Your task to perform on an android device: turn off picture-in-picture Image 0: 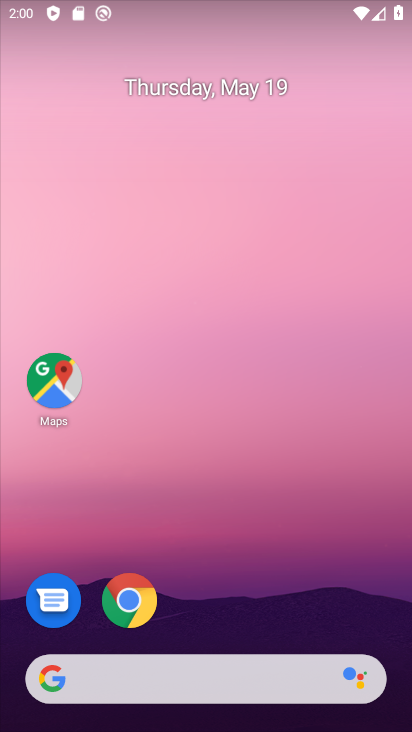
Step 0: click (131, 596)
Your task to perform on an android device: turn off picture-in-picture Image 1: 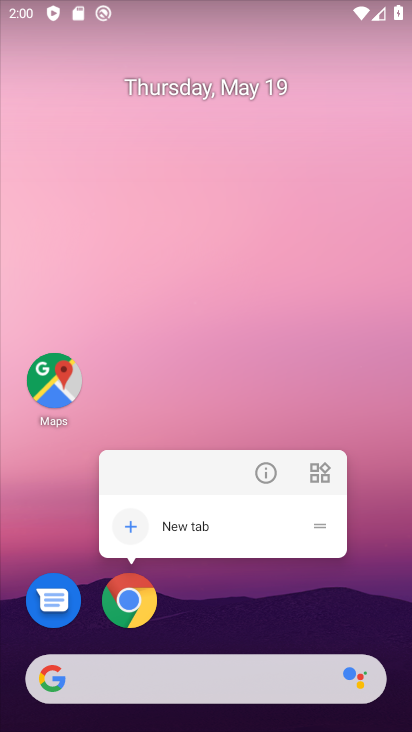
Step 1: click (268, 477)
Your task to perform on an android device: turn off picture-in-picture Image 2: 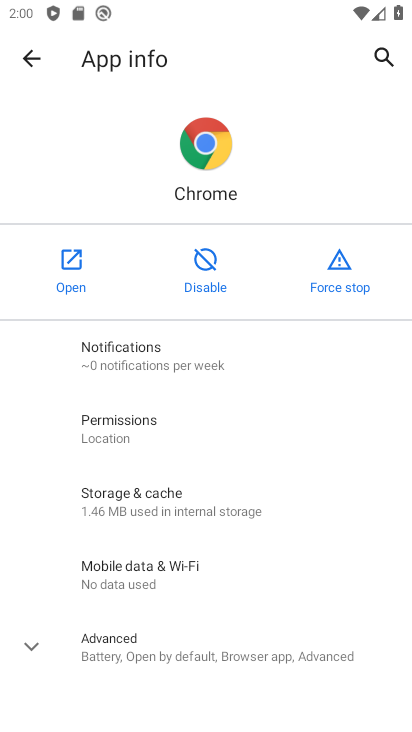
Step 2: drag from (184, 623) to (173, 310)
Your task to perform on an android device: turn off picture-in-picture Image 3: 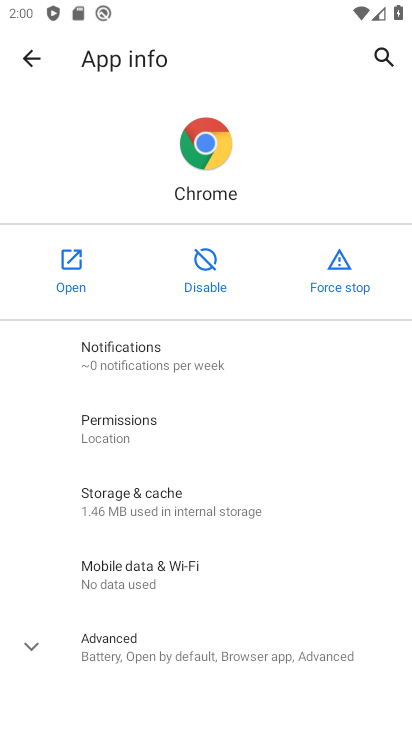
Step 3: click (183, 655)
Your task to perform on an android device: turn off picture-in-picture Image 4: 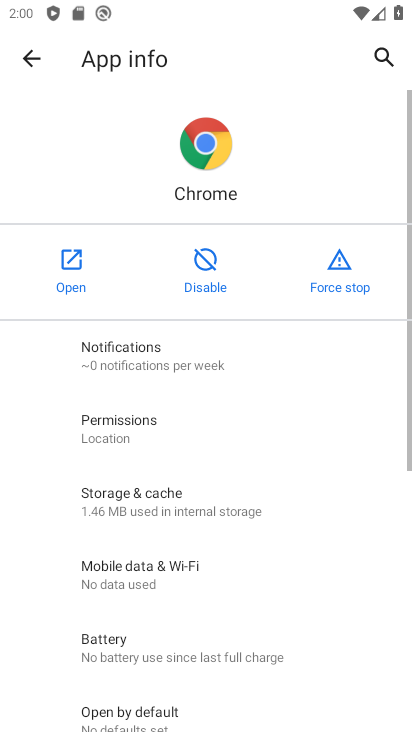
Step 4: drag from (191, 711) to (224, 317)
Your task to perform on an android device: turn off picture-in-picture Image 5: 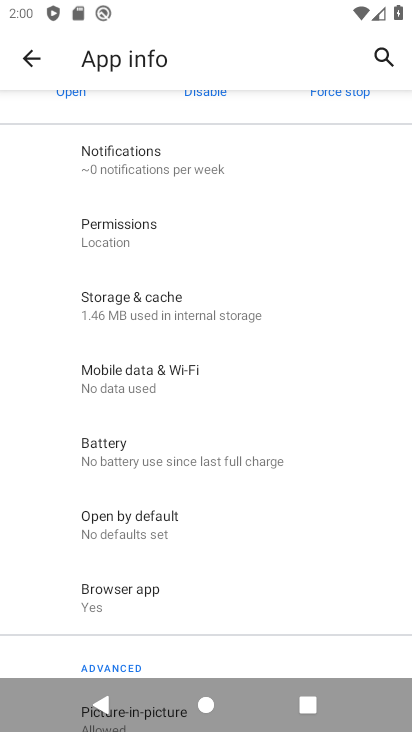
Step 5: drag from (213, 644) to (217, 315)
Your task to perform on an android device: turn off picture-in-picture Image 6: 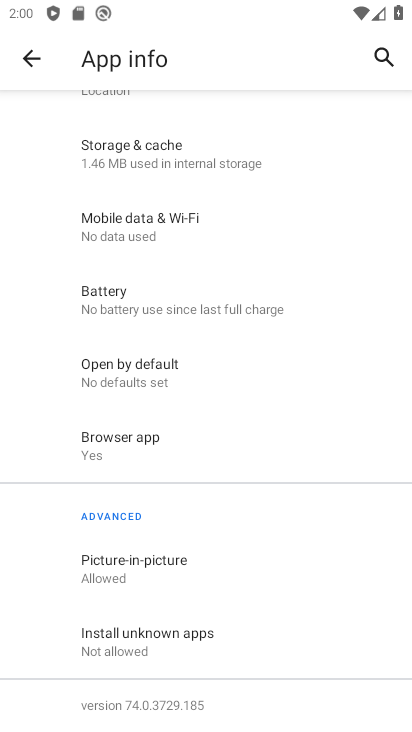
Step 6: click (132, 566)
Your task to perform on an android device: turn off picture-in-picture Image 7: 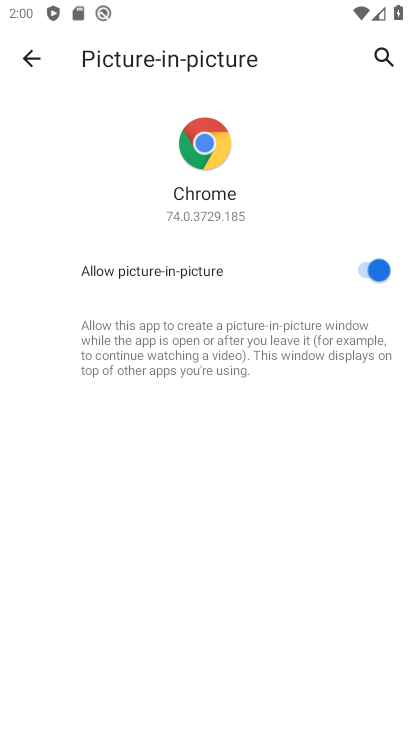
Step 7: click (369, 265)
Your task to perform on an android device: turn off picture-in-picture Image 8: 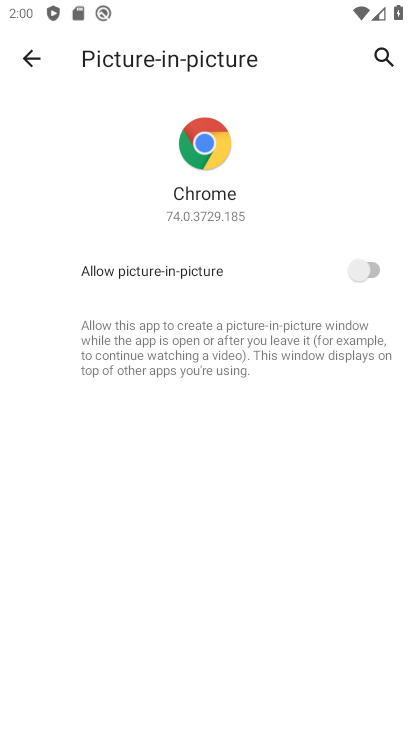
Step 8: task complete